Your task to perform on an android device: Open wifi settings Image 0: 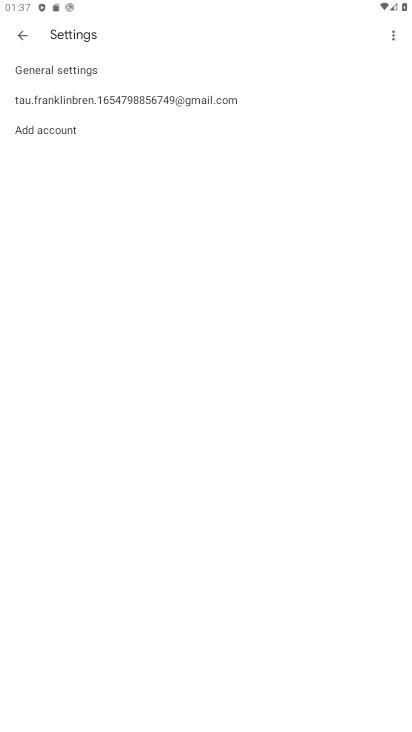
Step 0: press home button
Your task to perform on an android device: Open wifi settings Image 1: 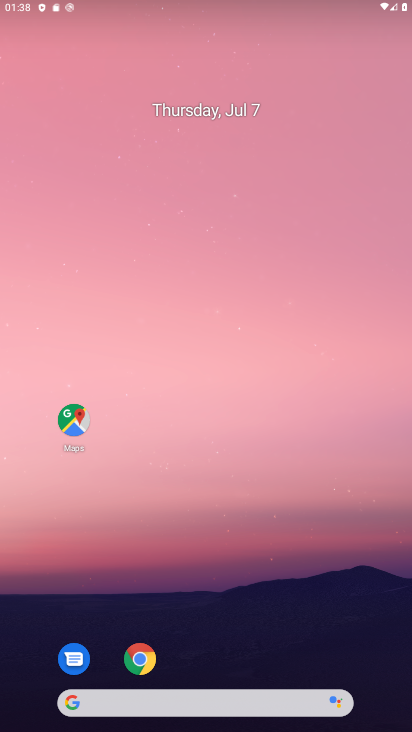
Step 1: drag from (245, 646) to (212, 76)
Your task to perform on an android device: Open wifi settings Image 2: 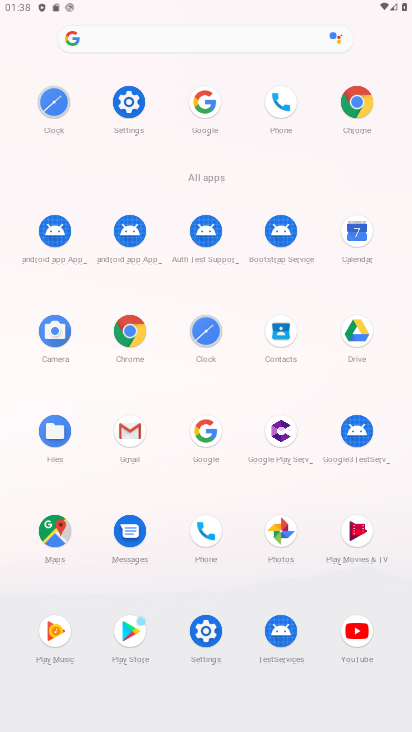
Step 2: click (126, 102)
Your task to perform on an android device: Open wifi settings Image 3: 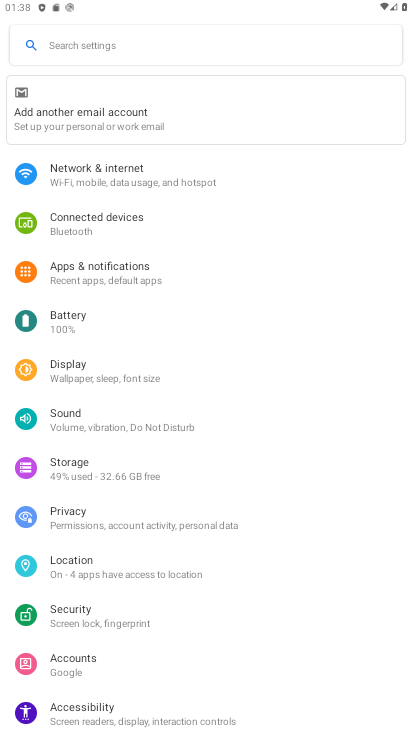
Step 3: click (137, 194)
Your task to perform on an android device: Open wifi settings Image 4: 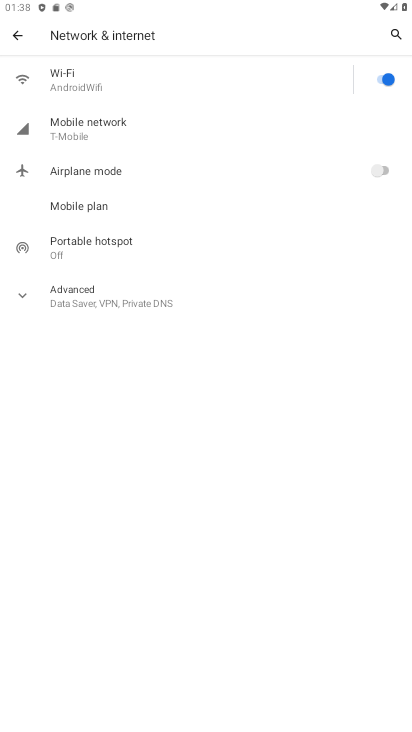
Step 4: click (143, 78)
Your task to perform on an android device: Open wifi settings Image 5: 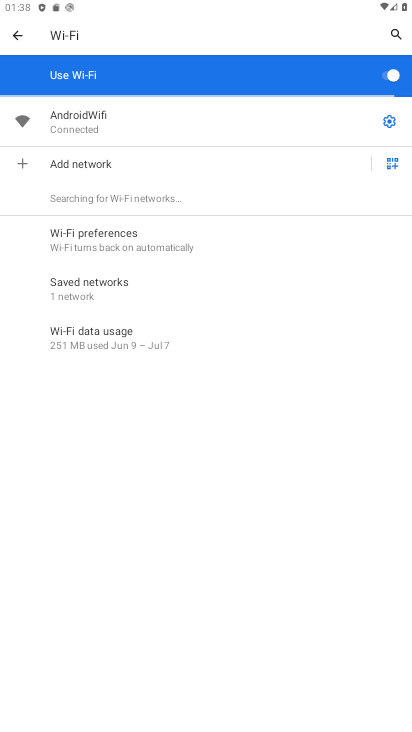
Step 5: click (395, 121)
Your task to perform on an android device: Open wifi settings Image 6: 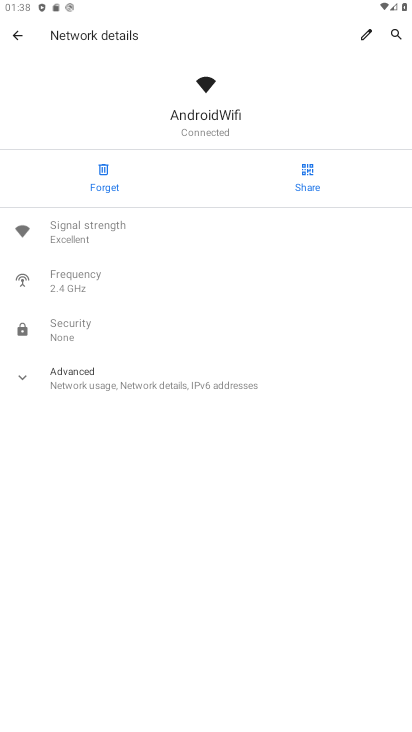
Step 6: task complete